Your task to perform on an android device: read, delete, or share a saved page in the chrome app Image 0: 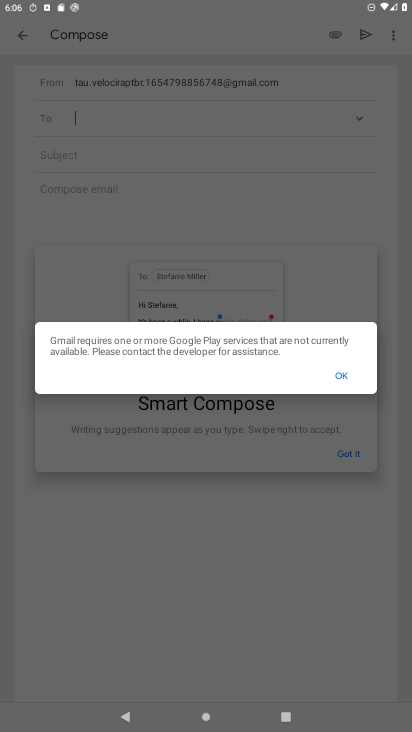
Step 0: press home button
Your task to perform on an android device: read, delete, or share a saved page in the chrome app Image 1: 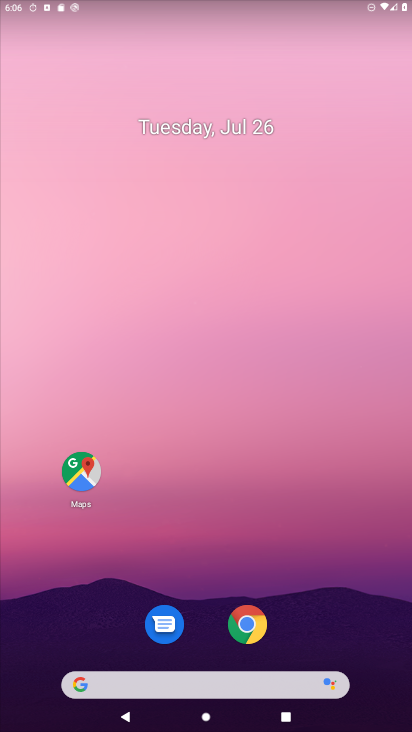
Step 1: drag from (288, 566) to (295, 133)
Your task to perform on an android device: read, delete, or share a saved page in the chrome app Image 2: 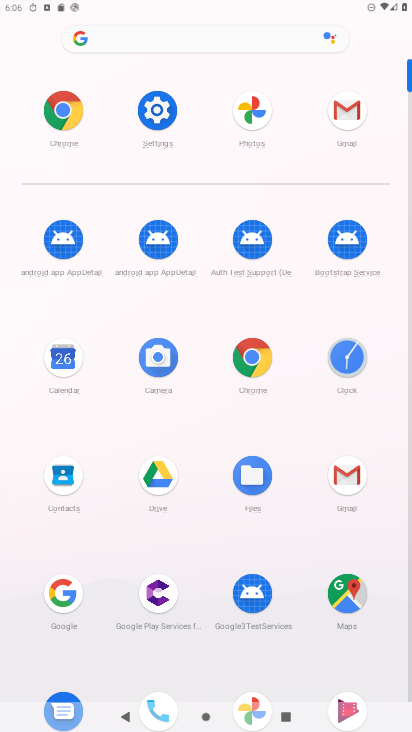
Step 2: click (268, 358)
Your task to perform on an android device: read, delete, or share a saved page in the chrome app Image 3: 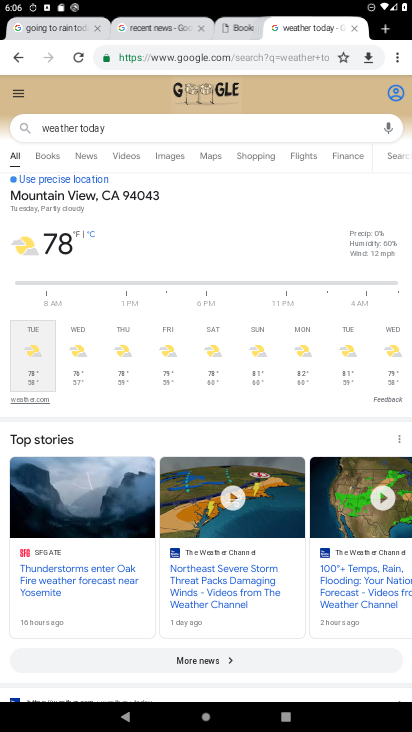
Step 3: click (401, 55)
Your task to perform on an android device: read, delete, or share a saved page in the chrome app Image 4: 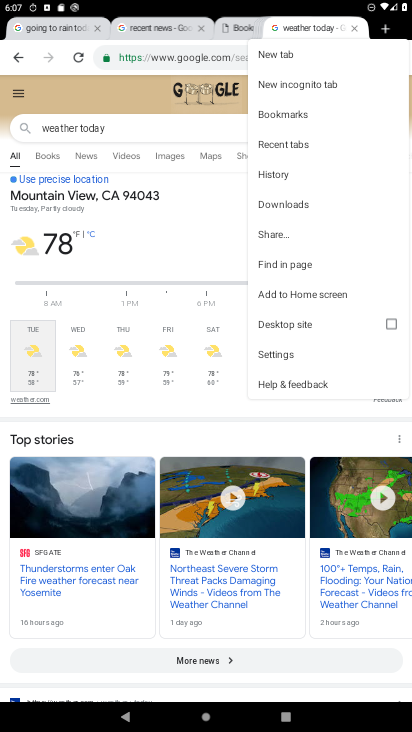
Step 4: click (284, 205)
Your task to perform on an android device: read, delete, or share a saved page in the chrome app Image 5: 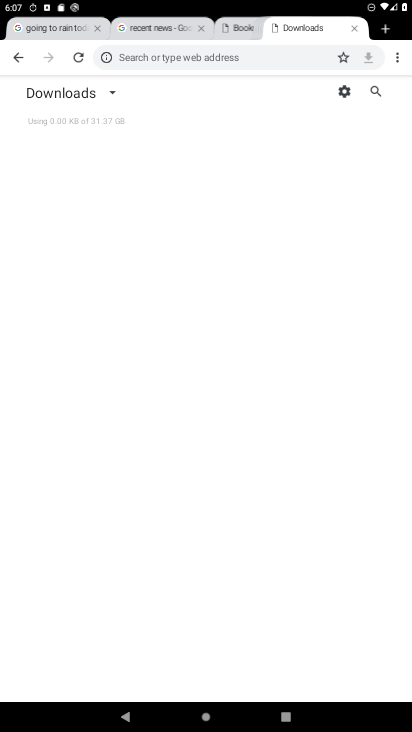
Step 5: task complete